Your task to perform on an android device: Open internet settings Image 0: 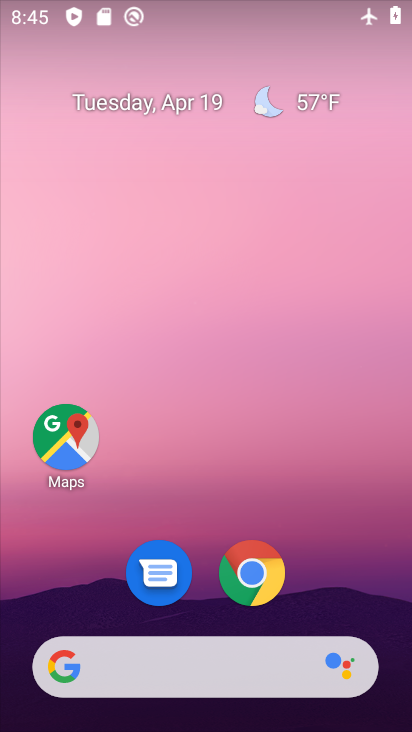
Step 0: drag from (329, 541) to (275, 61)
Your task to perform on an android device: Open internet settings Image 1: 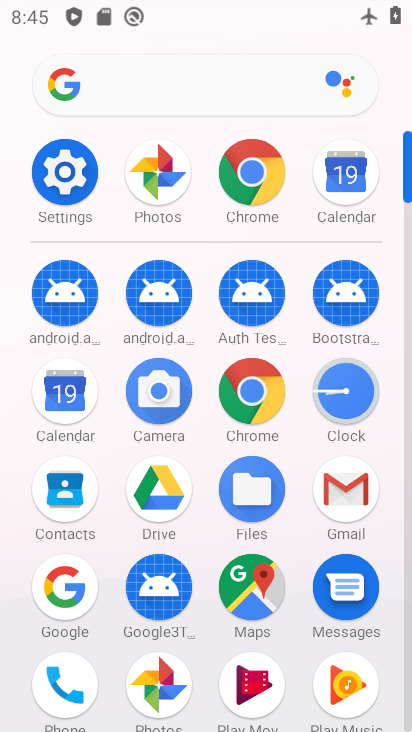
Step 1: click (65, 177)
Your task to perform on an android device: Open internet settings Image 2: 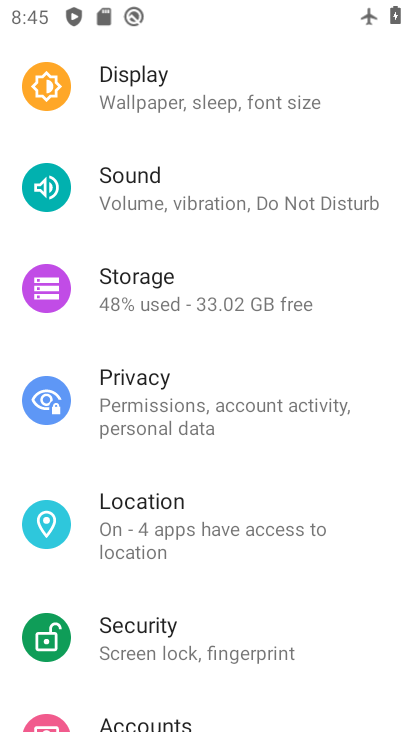
Step 2: drag from (261, 163) to (232, 530)
Your task to perform on an android device: Open internet settings Image 3: 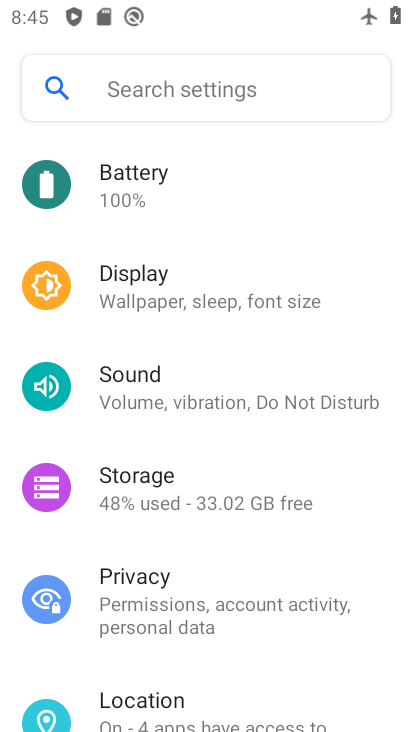
Step 3: drag from (232, 289) to (223, 640)
Your task to perform on an android device: Open internet settings Image 4: 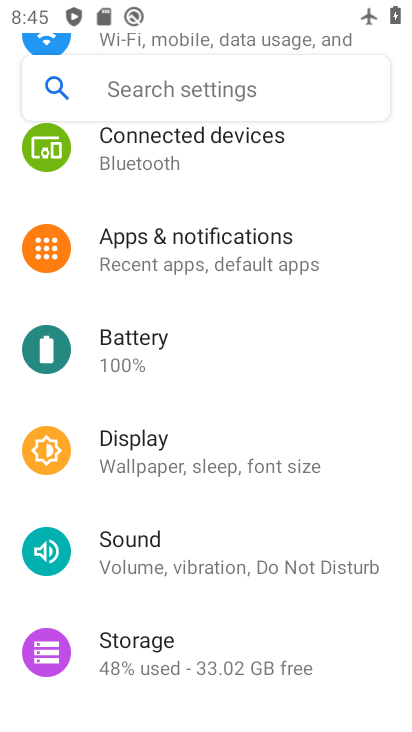
Step 4: drag from (249, 232) to (247, 642)
Your task to perform on an android device: Open internet settings Image 5: 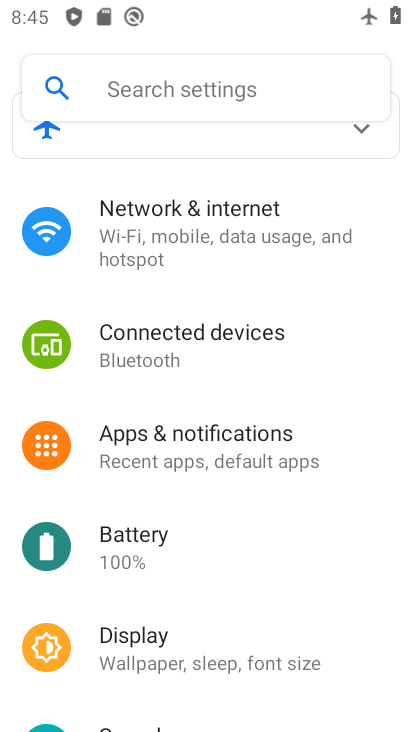
Step 5: click (205, 220)
Your task to perform on an android device: Open internet settings Image 6: 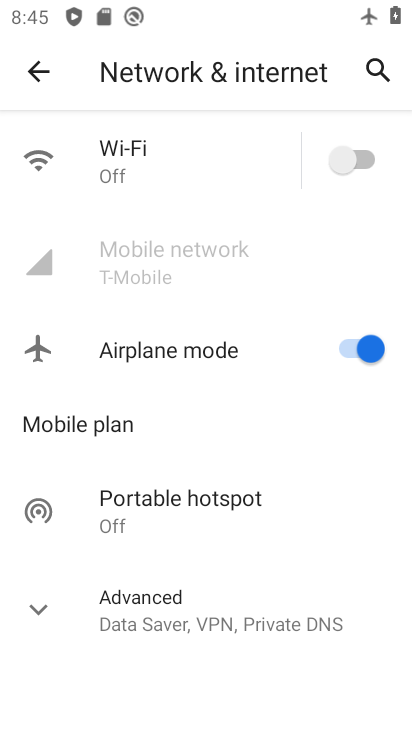
Step 6: task complete